Your task to perform on an android device: Go to display settings Image 0: 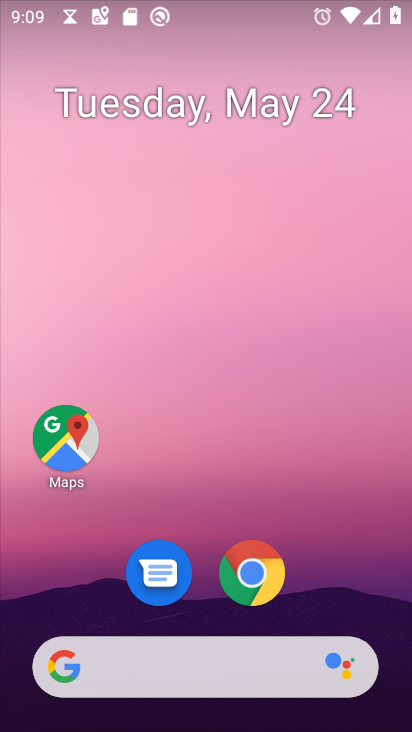
Step 0: drag from (353, 464) to (10, 102)
Your task to perform on an android device: Go to display settings Image 1: 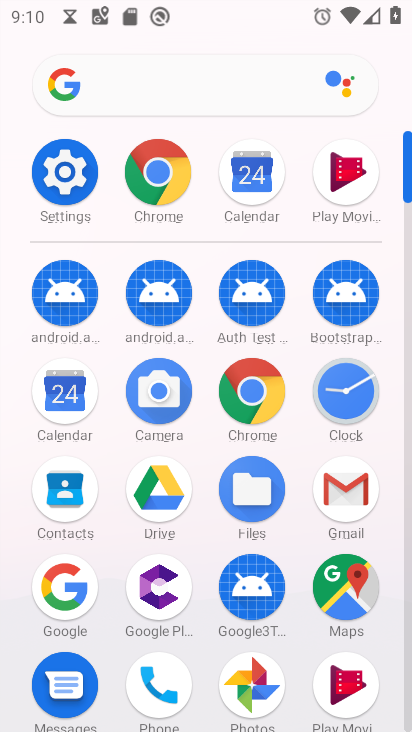
Step 1: click (66, 184)
Your task to perform on an android device: Go to display settings Image 2: 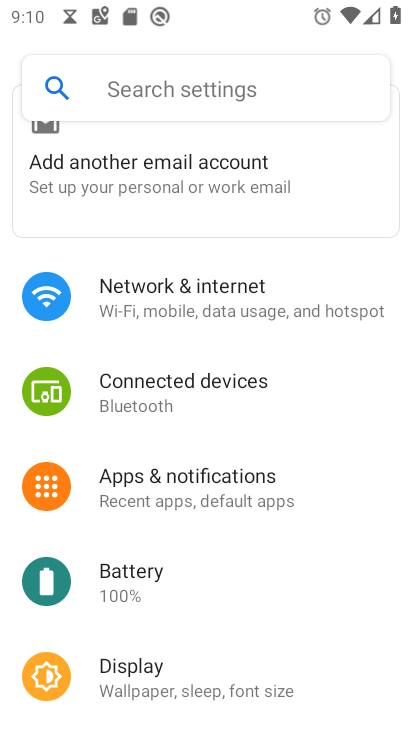
Step 2: drag from (176, 585) to (204, 143)
Your task to perform on an android device: Go to display settings Image 3: 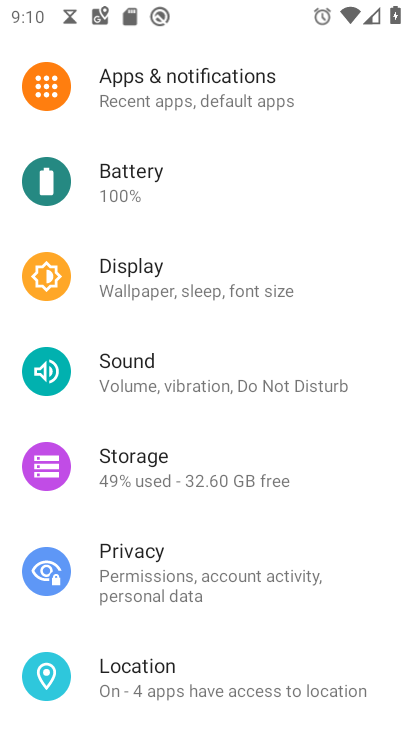
Step 3: click (135, 279)
Your task to perform on an android device: Go to display settings Image 4: 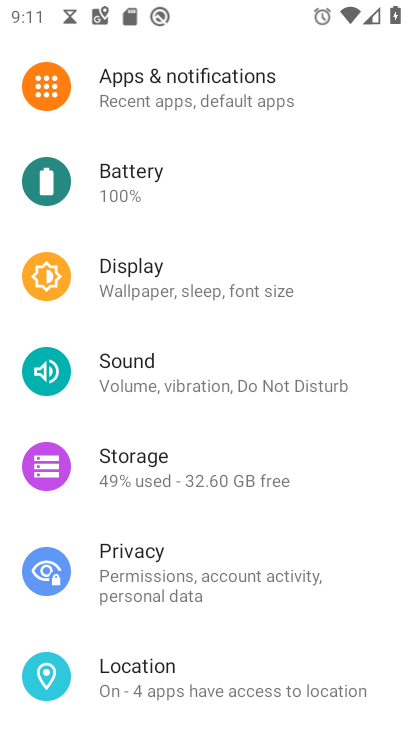
Step 4: click (131, 285)
Your task to perform on an android device: Go to display settings Image 5: 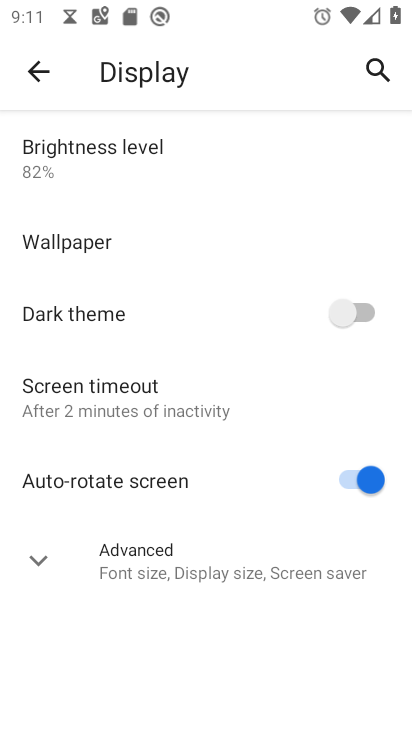
Step 5: task complete